Your task to perform on an android device: Open Youtube and go to the subscriptions tab Image 0: 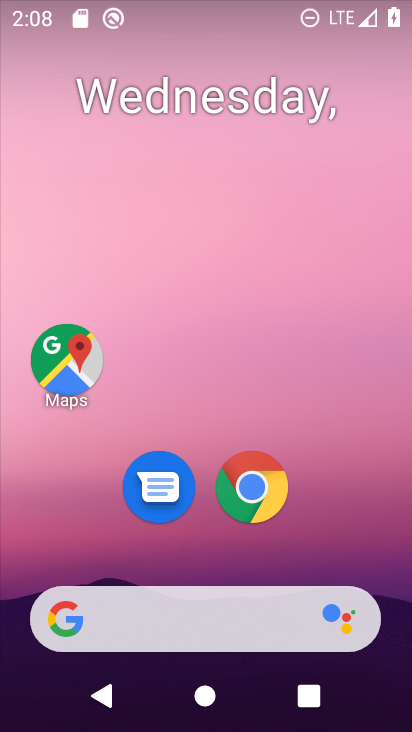
Step 0: drag from (400, 626) to (215, 93)
Your task to perform on an android device: Open Youtube and go to the subscriptions tab Image 1: 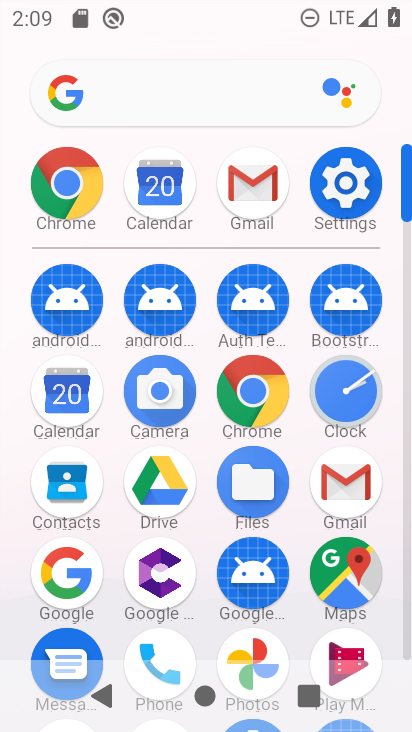
Step 1: click (409, 651)
Your task to perform on an android device: Open Youtube and go to the subscriptions tab Image 2: 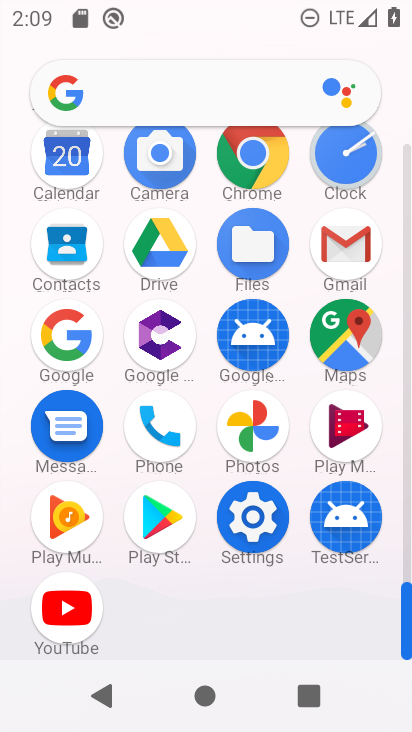
Step 2: click (63, 613)
Your task to perform on an android device: Open Youtube and go to the subscriptions tab Image 3: 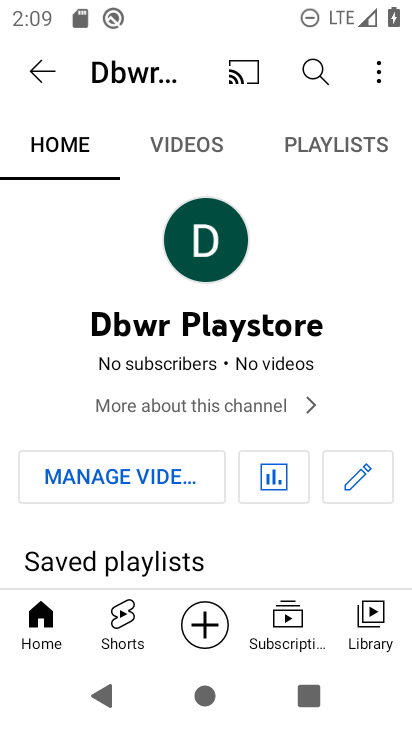
Step 3: click (292, 637)
Your task to perform on an android device: Open Youtube and go to the subscriptions tab Image 4: 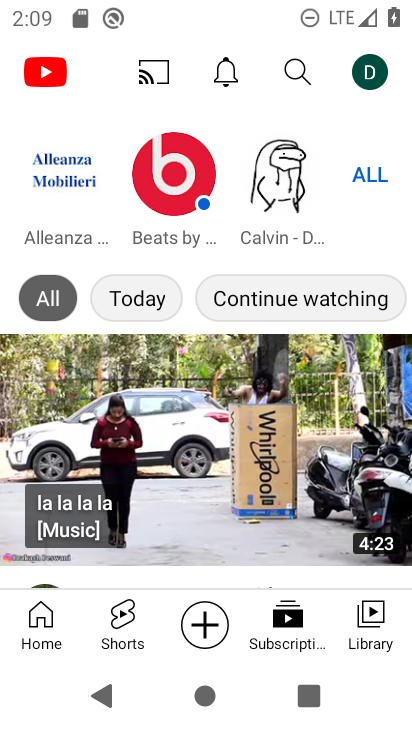
Step 4: task complete